Your task to perform on an android device: turn on sleep mode Image 0: 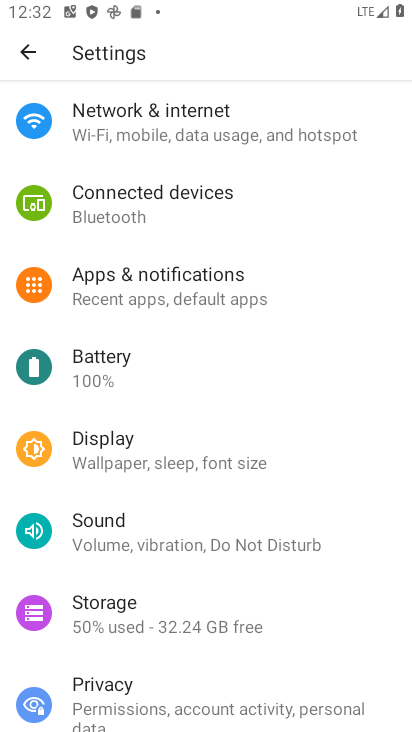
Step 0: press home button
Your task to perform on an android device: turn on sleep mode Image 1: 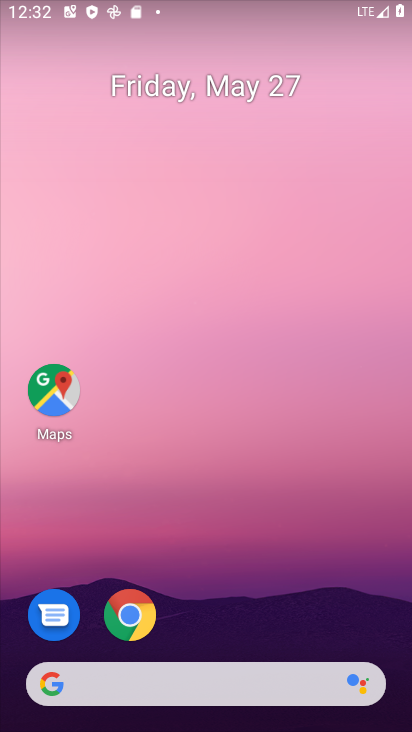
Step 1: drag from (328, 668) to (345, 0)
Your task to perform on an android device: turn on sleep mode Image 2: 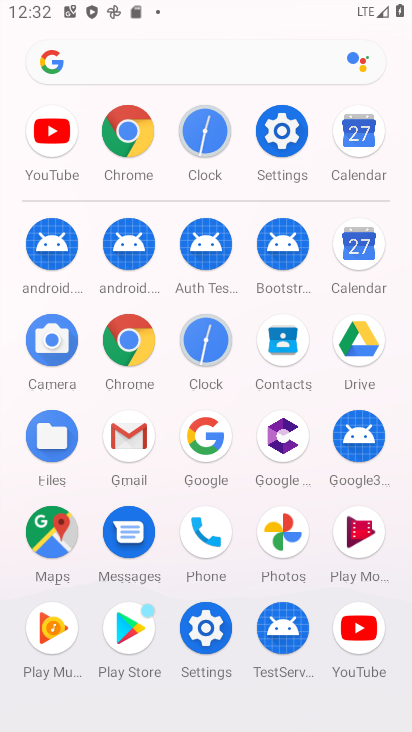
Step 2: click (279, 138)
Your task to perform on an android device: turn on sleep mode Image 3: 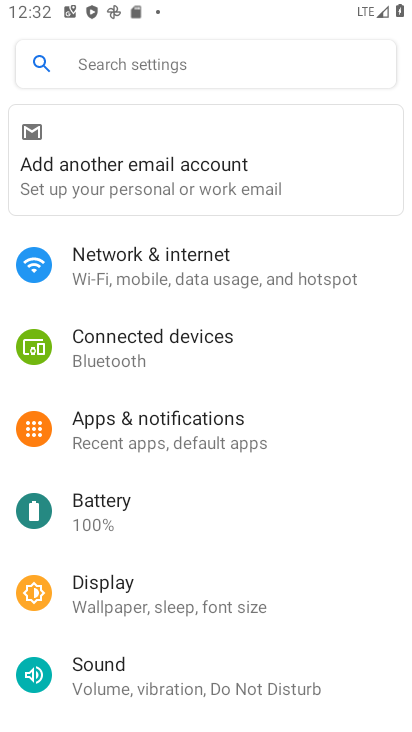
Step 3: click (199, 604)
Your task to perform on an android device: turn on sleep mode Image 4: 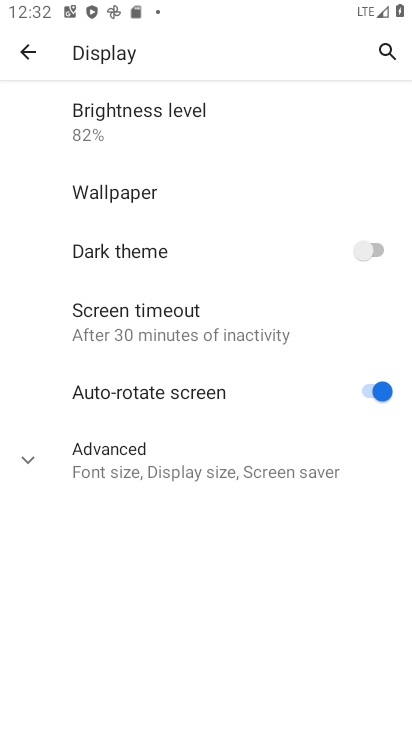
Step 4: task complete